Your task to perform on an android device: toggle improve location accuracy Image 0: 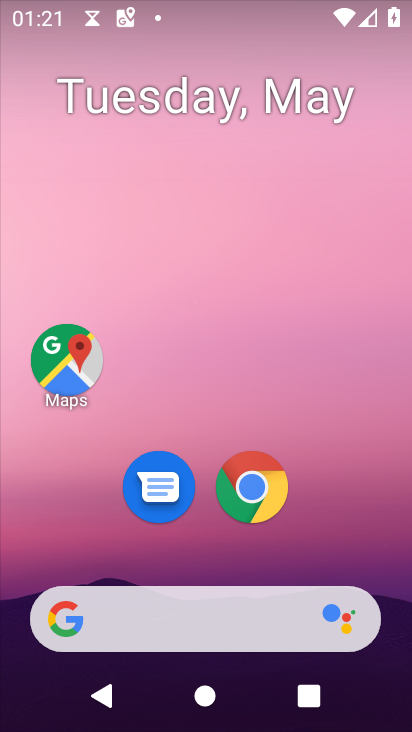
Step 0: drag from (225, 62) to (328, 238)
Your task to perform on an android device: toggle improve location accuracy Image 1: 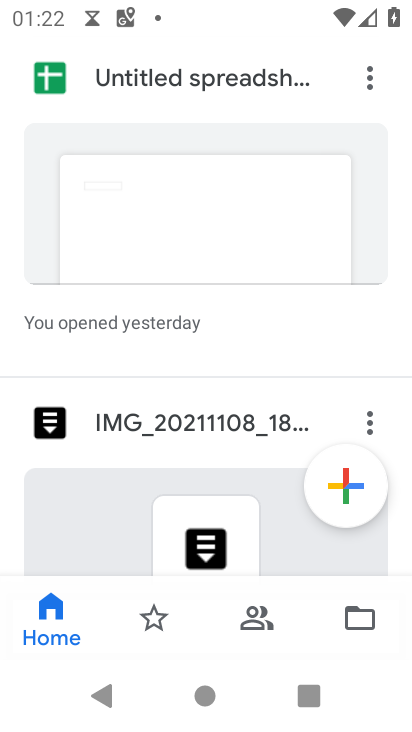
Step 1: press home button
Your task to perform on an android device: toggle improve location accuracy Image 2: 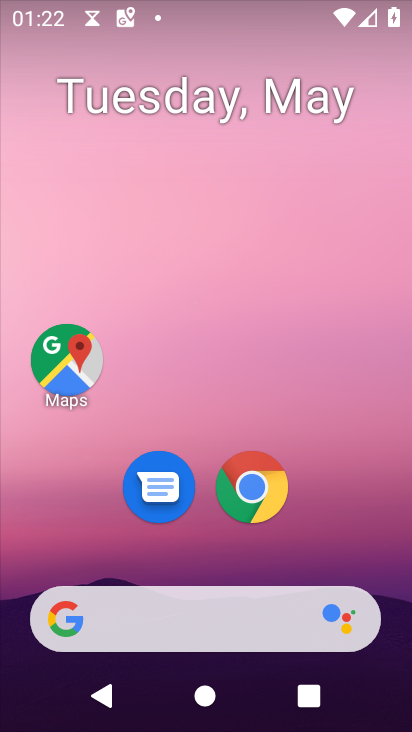
Step 2: drag from (293, 517) to (335, 110)
Your task to perform on an android device: toggle improve location accuracy Image 3: 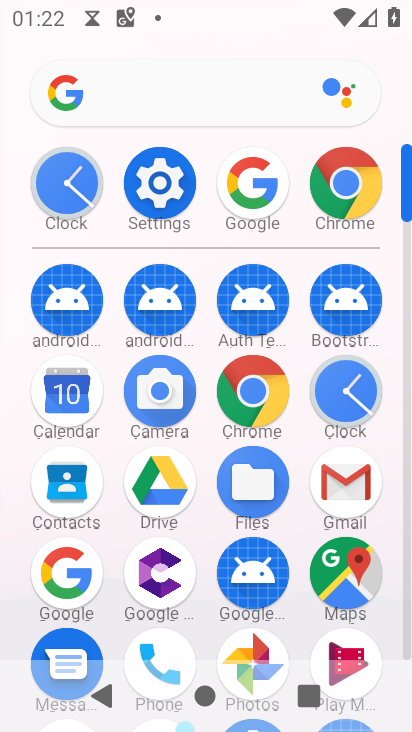
Step 3: click (346, 192)
Your task to perform on an android device: toggle improve location accuracy Image 4: 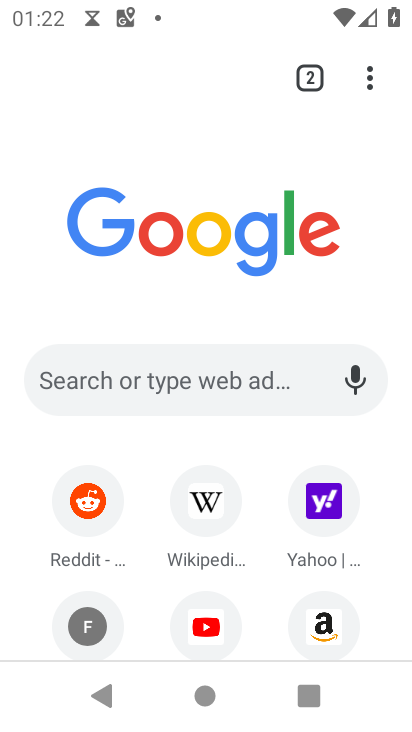
Step 4: click (367, 82)
Your task to perform on an android device: toggle improve location accuracy Image 5: 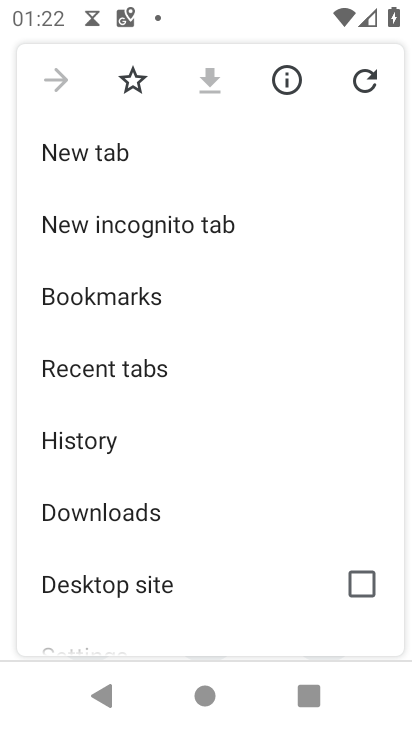
Step 5: drag from (188, 567) to (232, 185)
Your task to perform on an android device: toggle improve location accuracy Image 6: 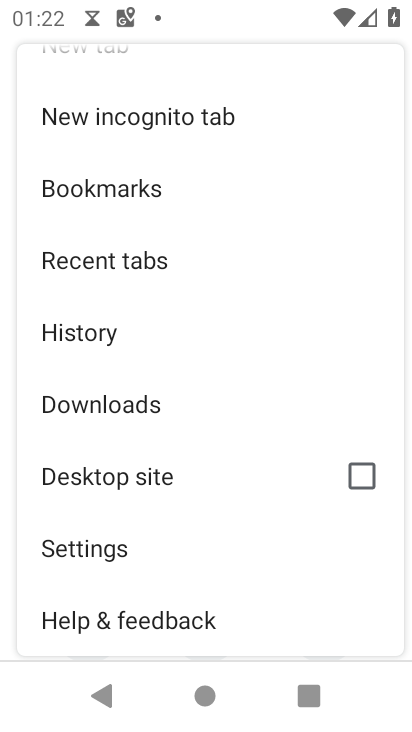
Step 6: click (161, 546)
Your task to perform on an android device: toggle improve location accuracy Image 7: 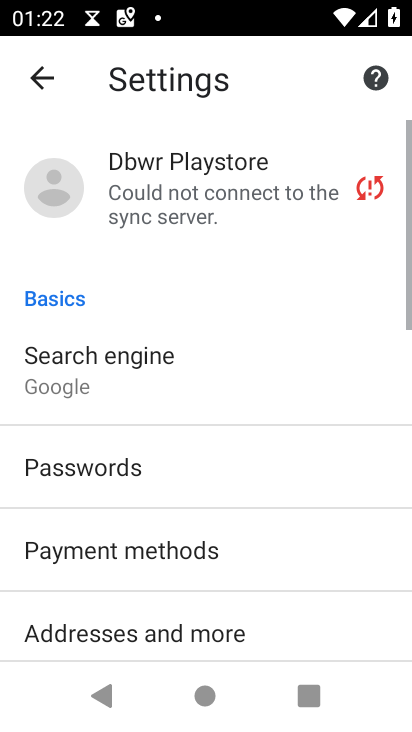
Step 7: drag from (158, 529) to (217, 176)
Your task to perform on an android device: toggle improve location accuracy Image 8: 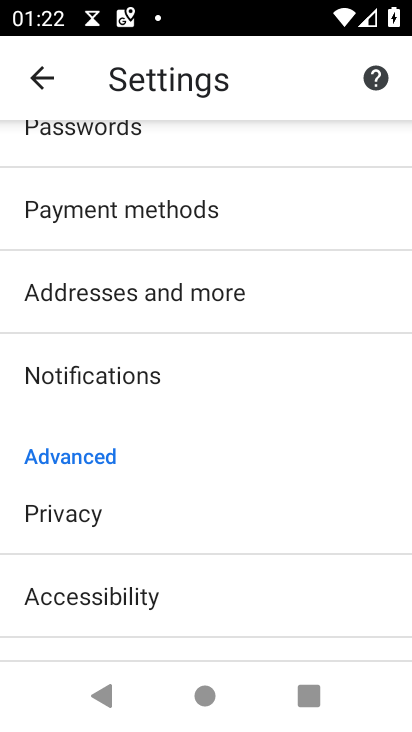
Step 8: drag from (174, 505) to (279, 145)
Your task to perform on an android device: toggle improve location accuracy Image 9: 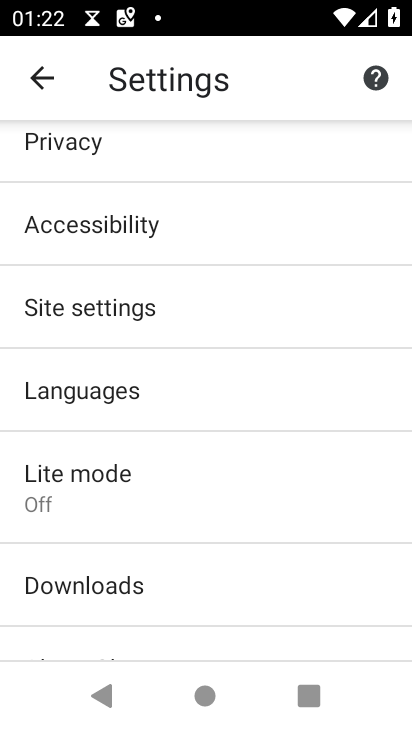
Step 9: click (215, 316)
Your task to perform on an android device: toggle improve location accuracy Image 10: 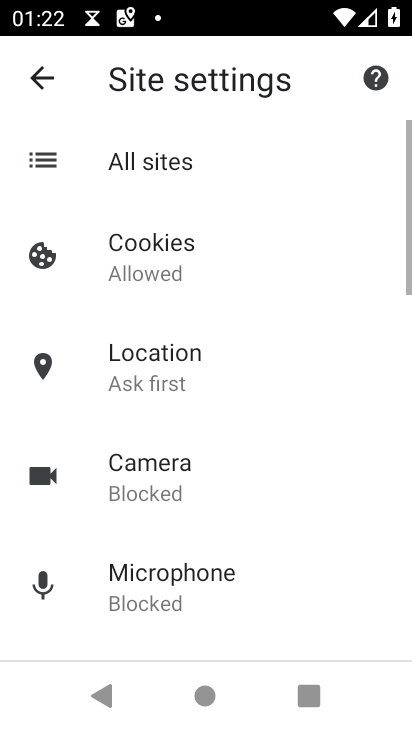
Step 10: drag from (265, 446) to (265, 64)
Your task to perform on an android device: toggle improve location accuracy Image 11: 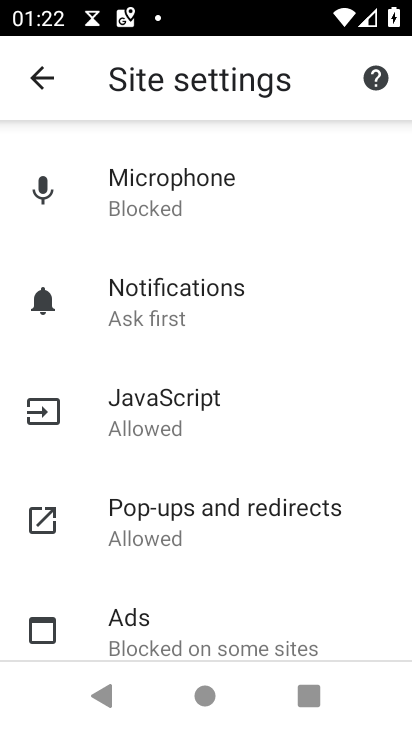
Step 11: drag from (215, 402) to (289, 147)
Your task to perform on an android device: toggle improve location accuracy Image 12: 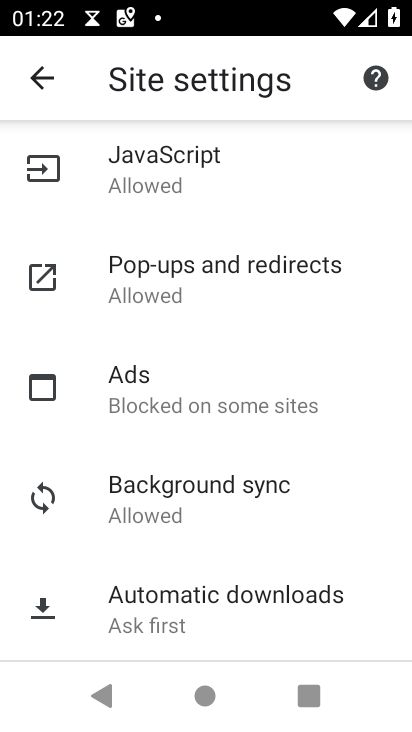
Step 12: drag from (232, 443) to (341, 75)
Your task to perform on an android device: toggle improve location accuracy Image 13: 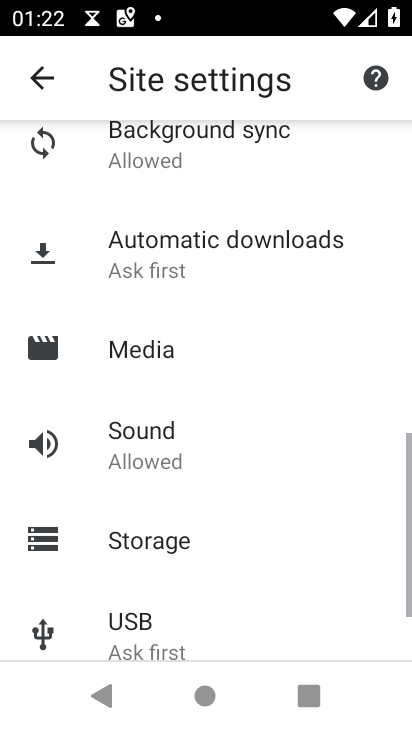
Step 13: drag from (176, 337) to (318, 104)
Your task to perform on an android device: toggle improve location accuracy Image 14: 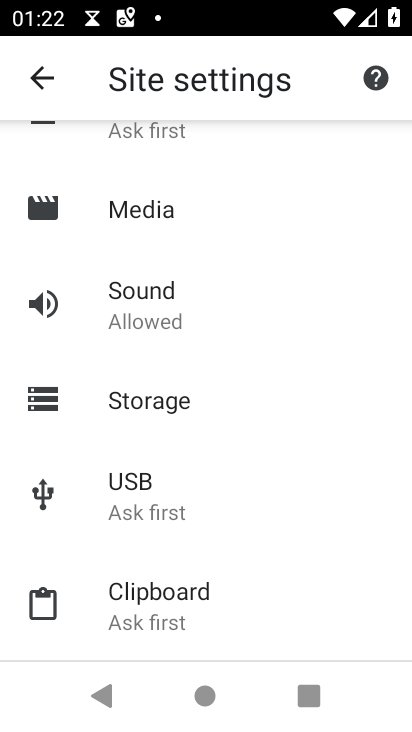
Step 14: drag from (233, 430) to (335, 131)
Your task to perform on an android device: toggle improve location accuracy Image 15: 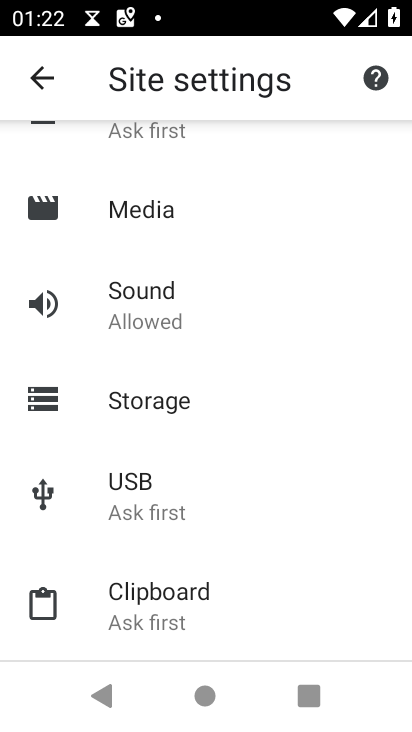
Step 15: drag from (280, 275) to (333, 663)
Your task to perform on an android device: toggle improve location accuracy Image 16: 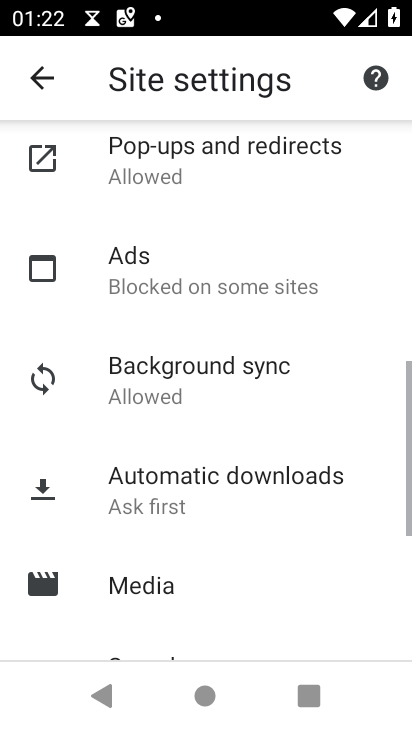
Step 16: drag from (327, 329) to (314, 557)
Your task to perform on an android device: toggle improve location accuracy Image 17: 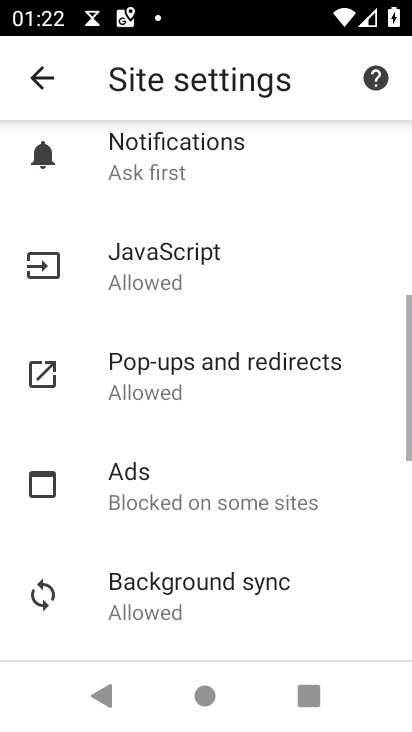
Step 17: drag from (290, 238) to (279, 460)
Your task to perform on an android device: toggle improve location accuracy Image 18: 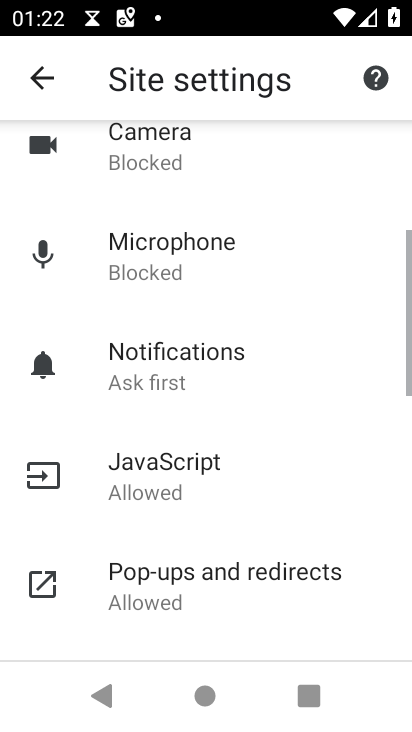
Step 18: drag from (296, 108) to (251, 338)
Your task to perform on an android device: toggle improve location accuracy Image 19: 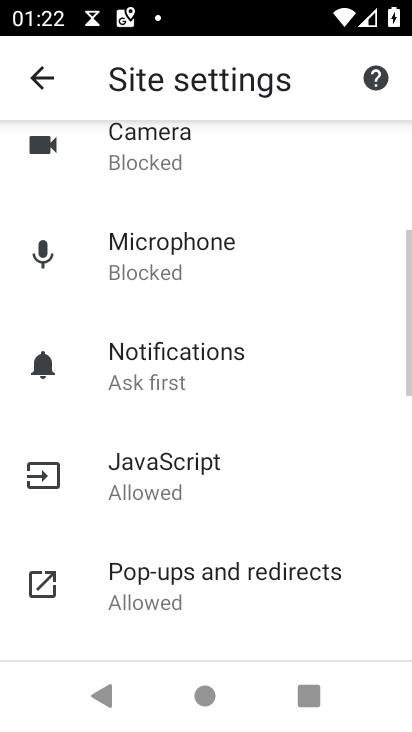
Step 19: drag from (254, 118) to (181, 224)
Your task to perform on an android device: toggle improve location accuracy Image 20: 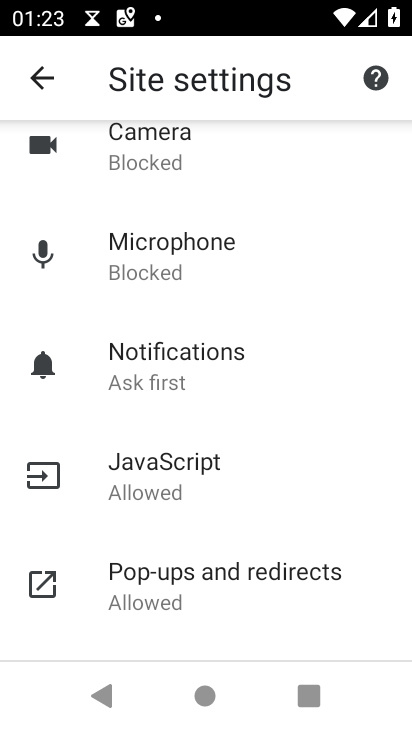
Step 20: press back button
Your task to perform on an android device: toggle improve location accuracy Image 21: 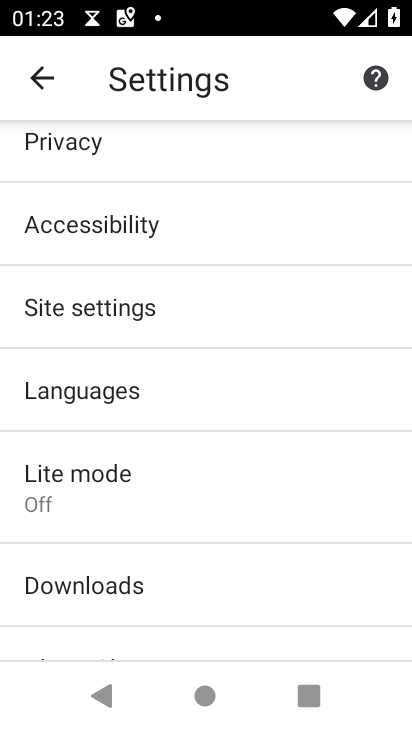
Step 21: press back button
Your task to perform on an android device: toggle improve location accuracy Image 22: 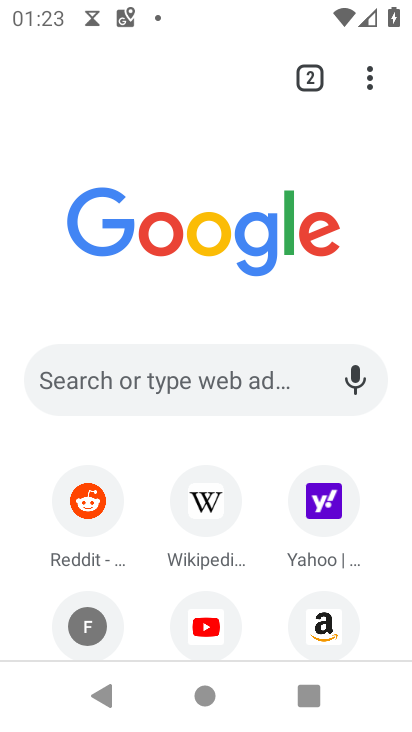
Step 22: press back button
Your task to perform on an android device: toggle improve location accuracy Image 23: 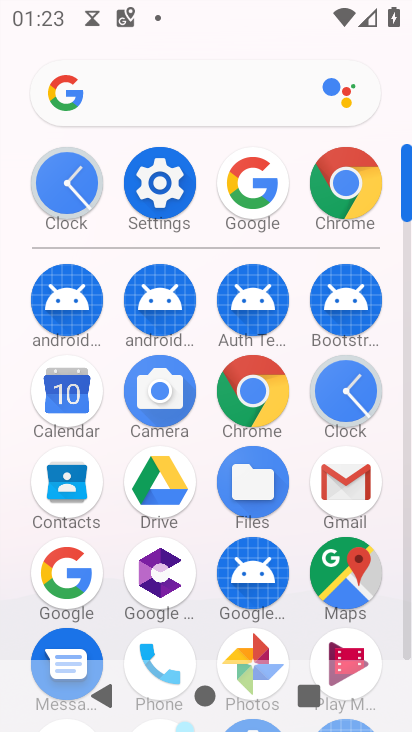
Step 23: click (173, 205)
Your task to perform on an android device: toggle improve location accuracy Image 24: 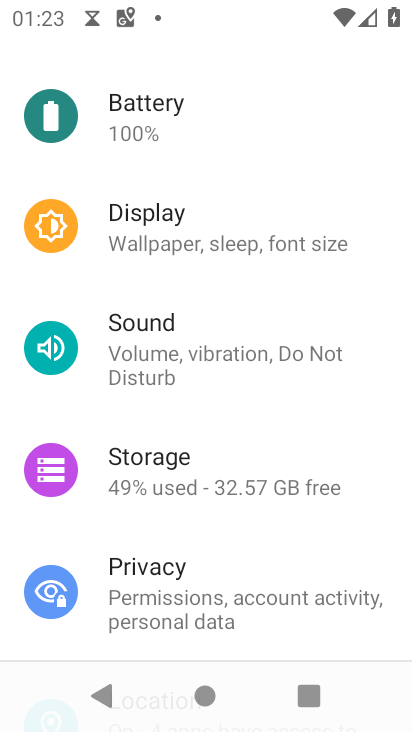
Step 24: drag from (364, 514) to (309, 258)
Your task to perform on an android device: toggle improve location accuracy Image 25: 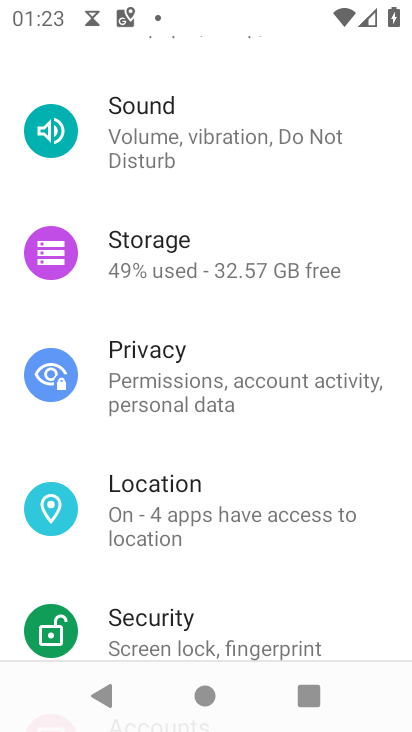
Step 25: click (250, 517)
Your task to perform on an android device: toggle improve location accuracy Image 26: 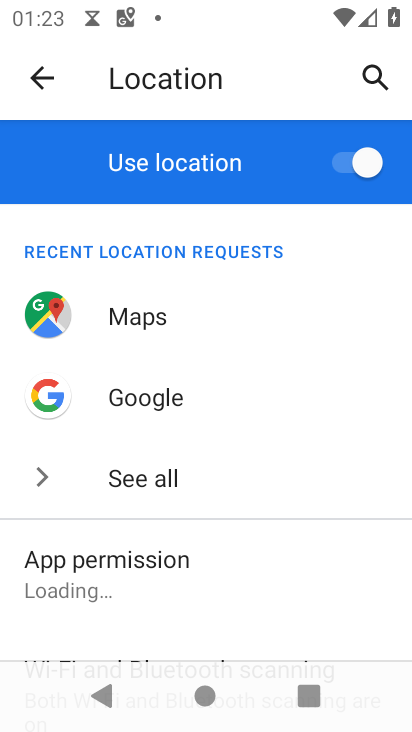
Step 26: drag from (112, 638) to (180, 182)
Your task to perform on an android device: toggle improve location accuracy Image 27: 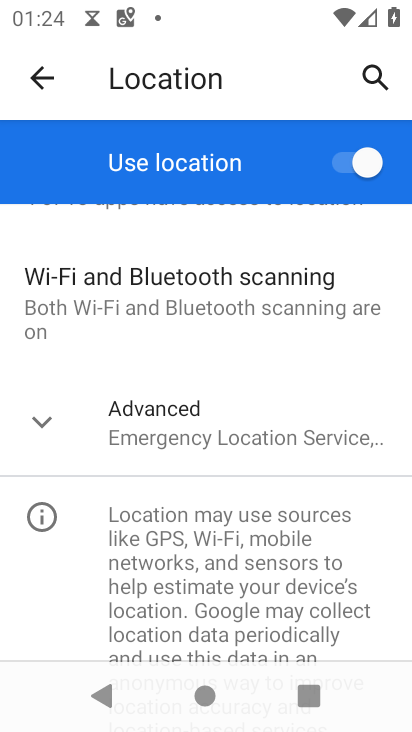
Step 27: click (174, 435)
Your task to perform on an android device: toggle improve location accuracy Image 28: 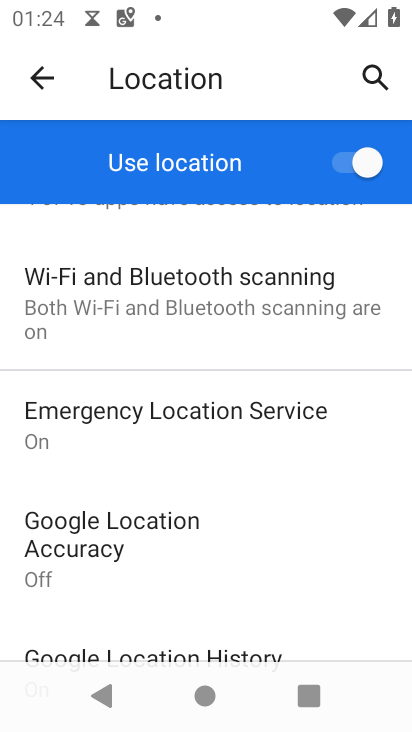
Step 28: click (104, 542)
Your task to perform on an android device: toggle improve location accuracy Image 29: 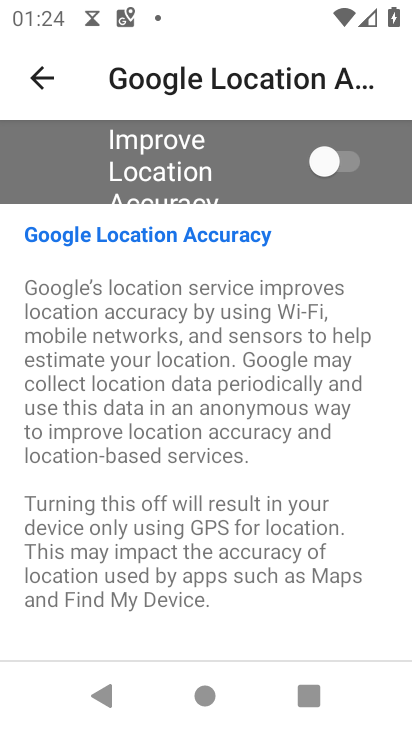
Step 29: drag from (250, 527) to (221, 148)
Your task to perform on an android device: toggle improve location accuracy Image 30: 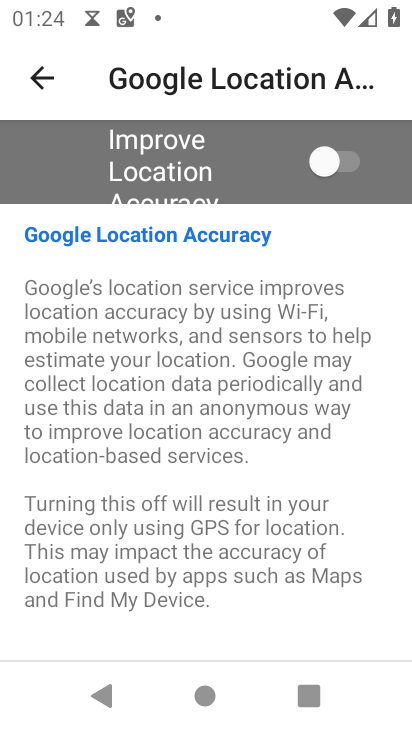
Step 30: click (355, 164)
Your task to perform on an android device: toggle improve location accuracy Image 31: 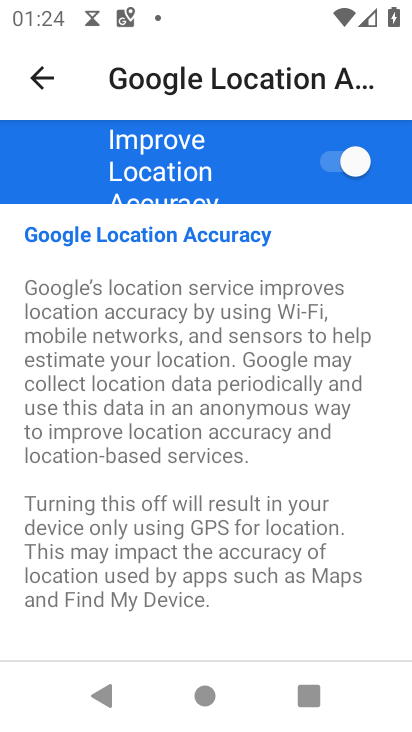
Step 31: task complete